Your task to perform on an android device: Open ESPN.com Image 0: 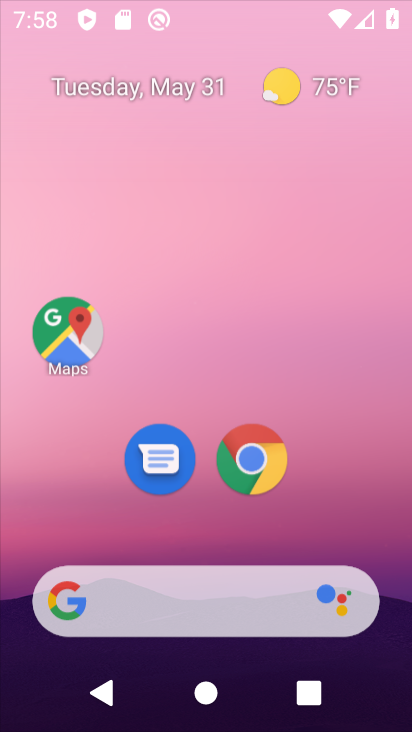
Step 0: click (284, 193)
Your task to perform on an android device: Open ESPN.com Image 1: 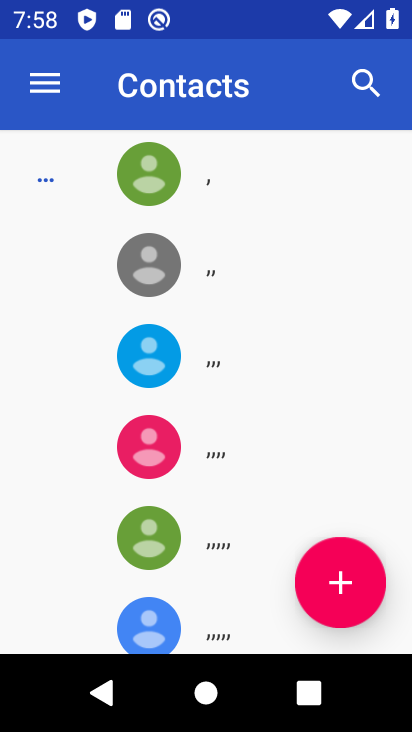
Step 1: press home button
Your task to perform on an android device: Open ESPN.com Image 2: 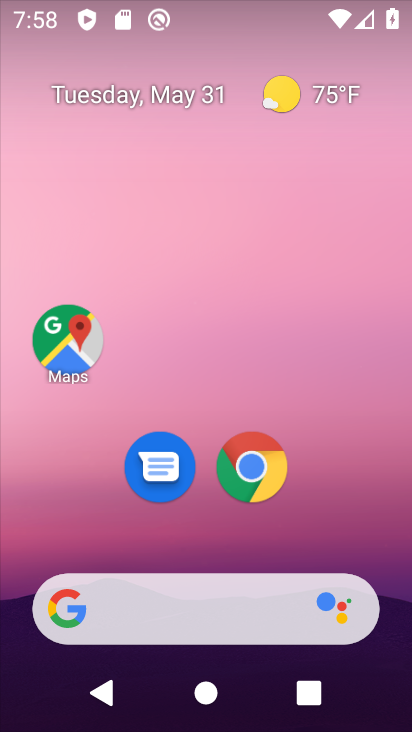
Step 2: drag from (196, 542) to (236, 112)
Your task to perform on an android device: Open ESPN.com Image 3: 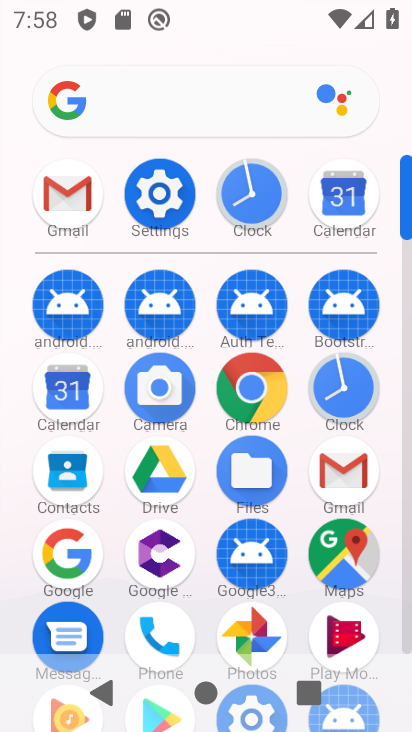
Step 3: click (172, 106)
Your task to perform on an android device: Open ESPN.com Image 4: 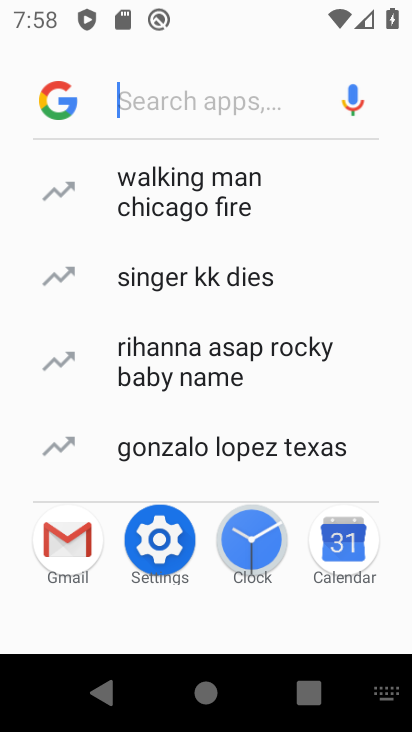
Step 4: type "ESPN.com"
Your task to perform on an android device: Open ESPN.com Image 5: 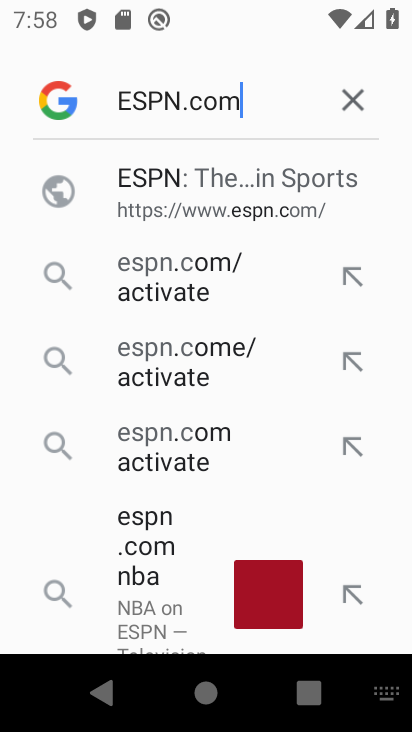
Step 5: type ""
Your task to perform on an android device: Open ESPN.com Image 6: 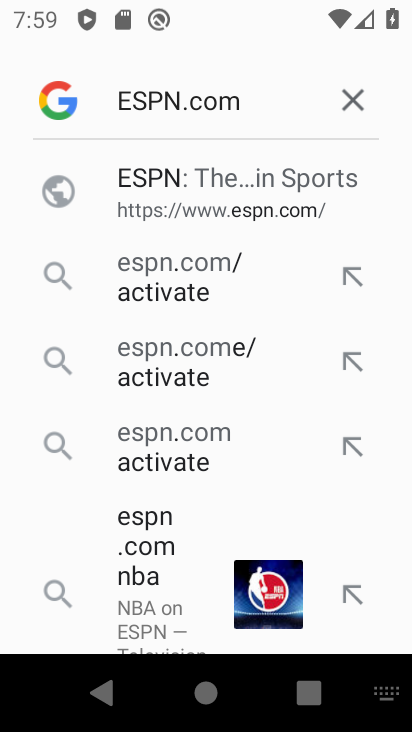
Step 6: click (152, 208)
Your task to perform on an android device: Open ESPN.com Image 7: 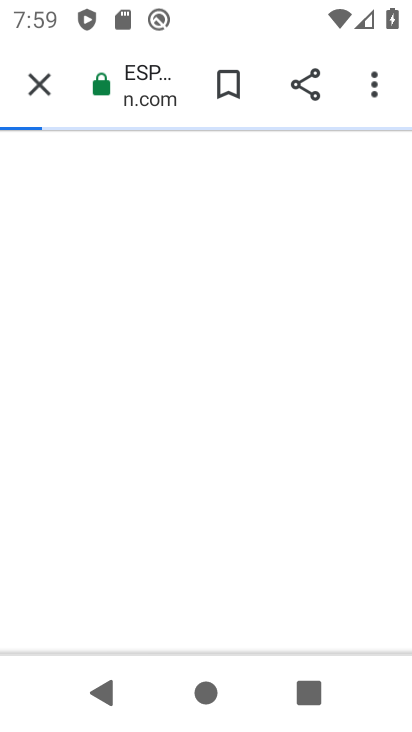
Step 7: task complete